Your task to perform on an android device: Search for panasonic triple a on walmart.com, select the first entry, and add it to the cart. Image 0: 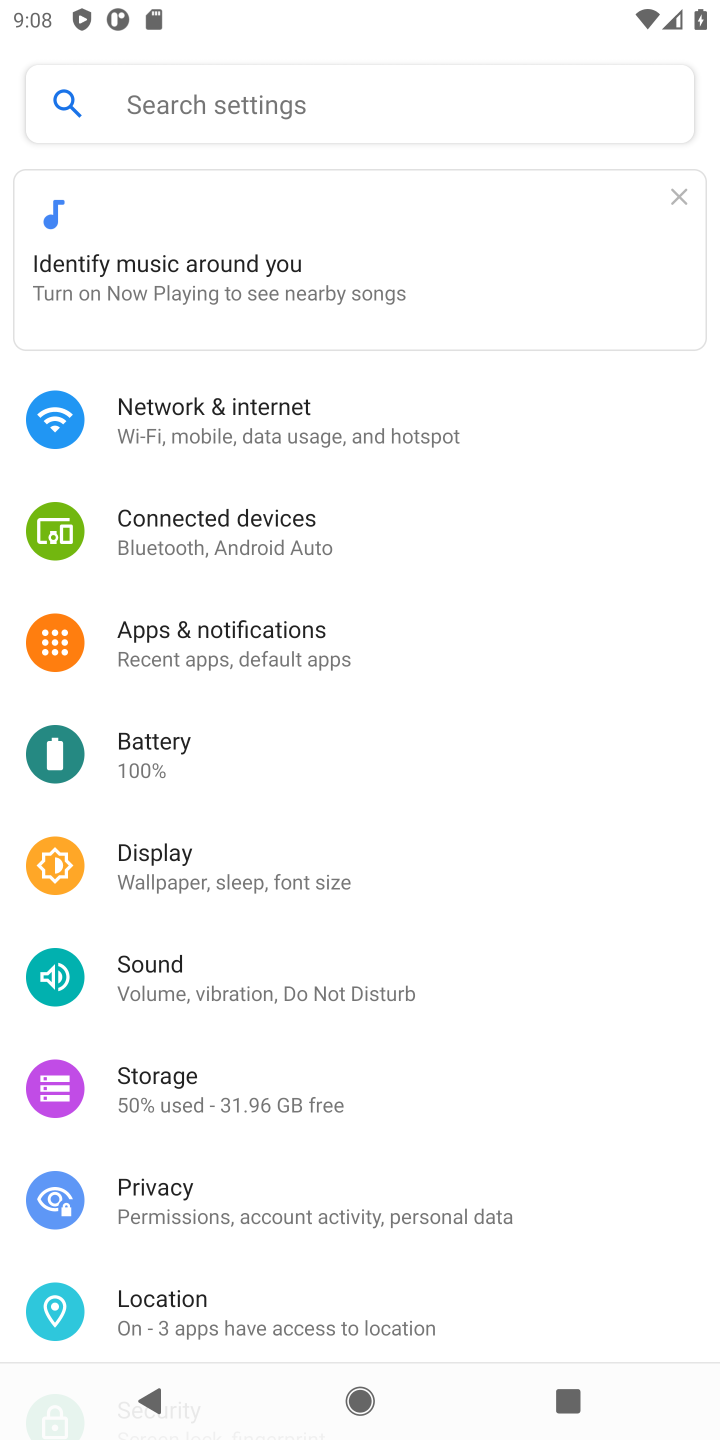
Step 0: press home button
Your task to perform on an android device: Search for panasonic triple a on walmart.com, select the first entry, and add it to the cart. Image 1: 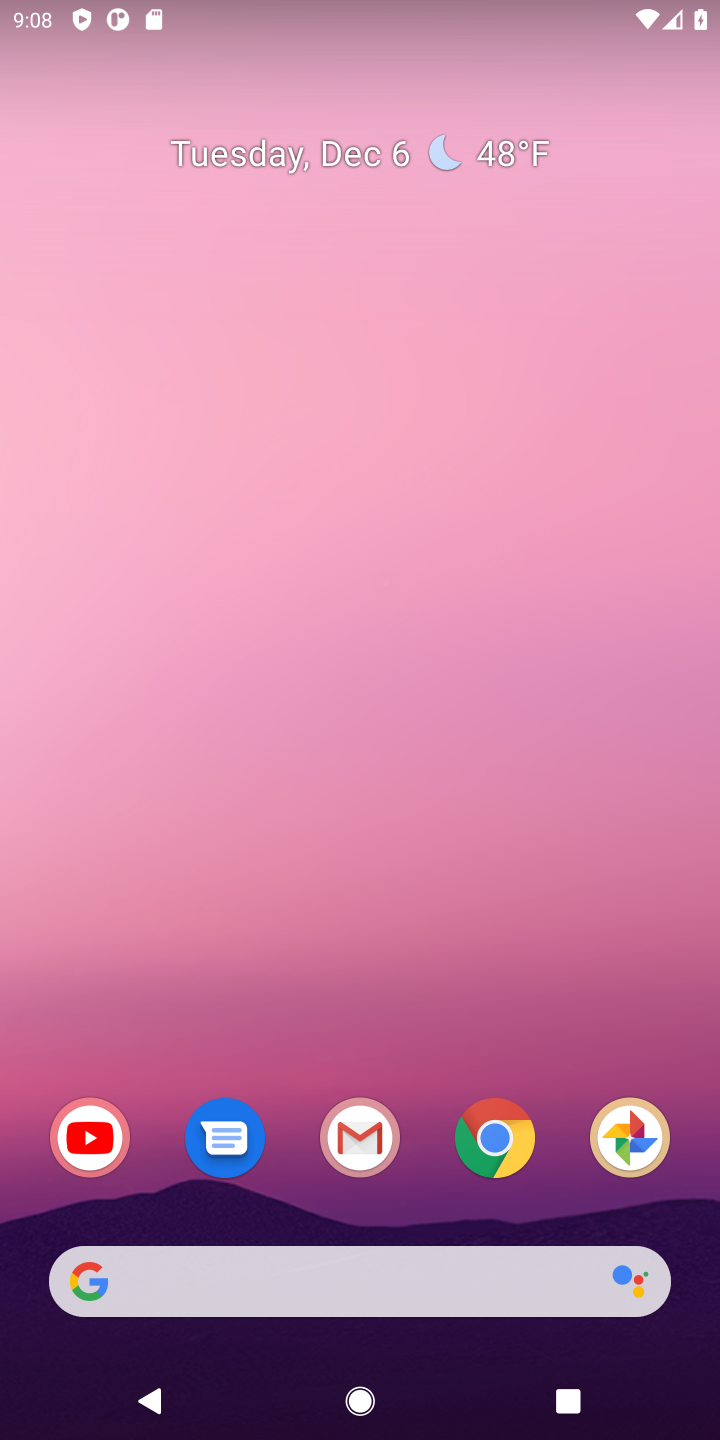
Step 1: click (498, 1147)
Your task to perform on an android device: Search for panasonic triple a on walmart.com, select the first entry, and add it to the cart. Image 2: 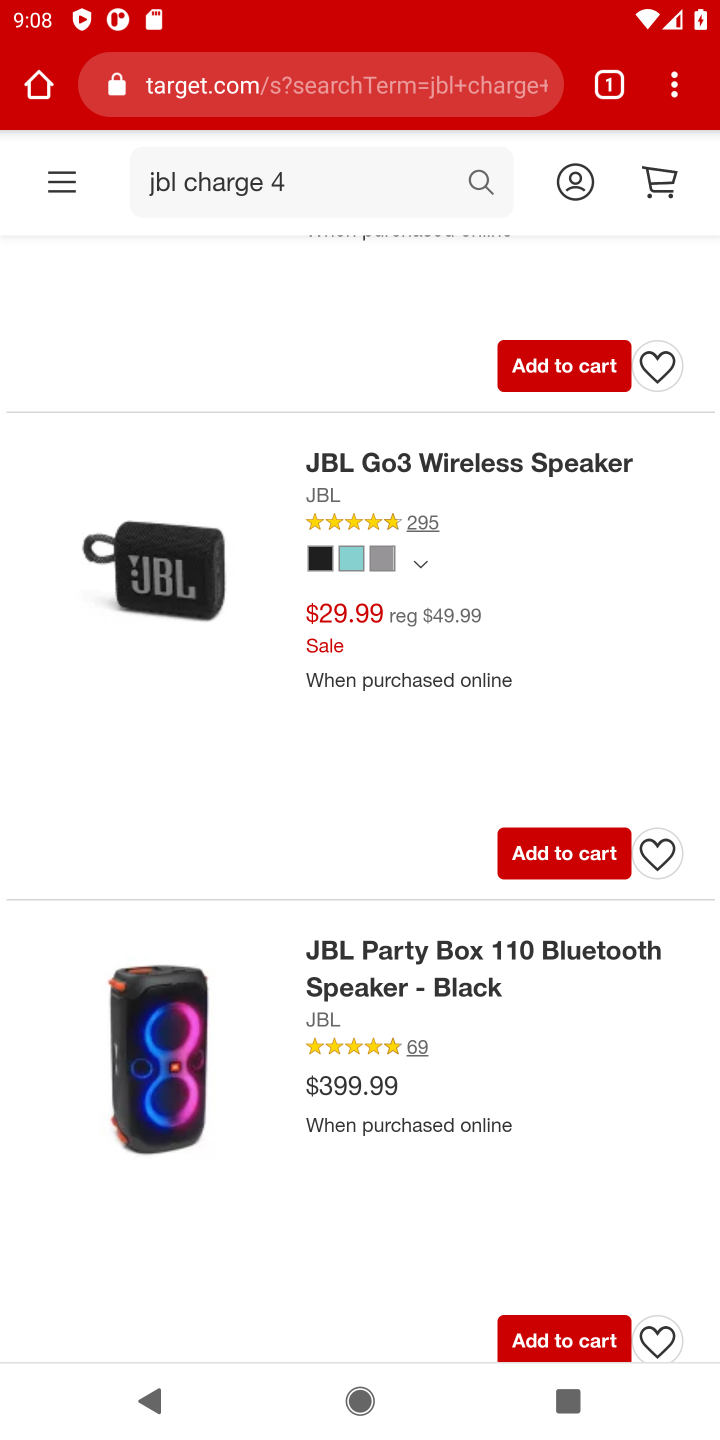
Step 2: click (258, 98)
Your task to perform on an android device: Search for panasonic triple a on walmart.com, select the first entry, and add it to the cart. Image 3: 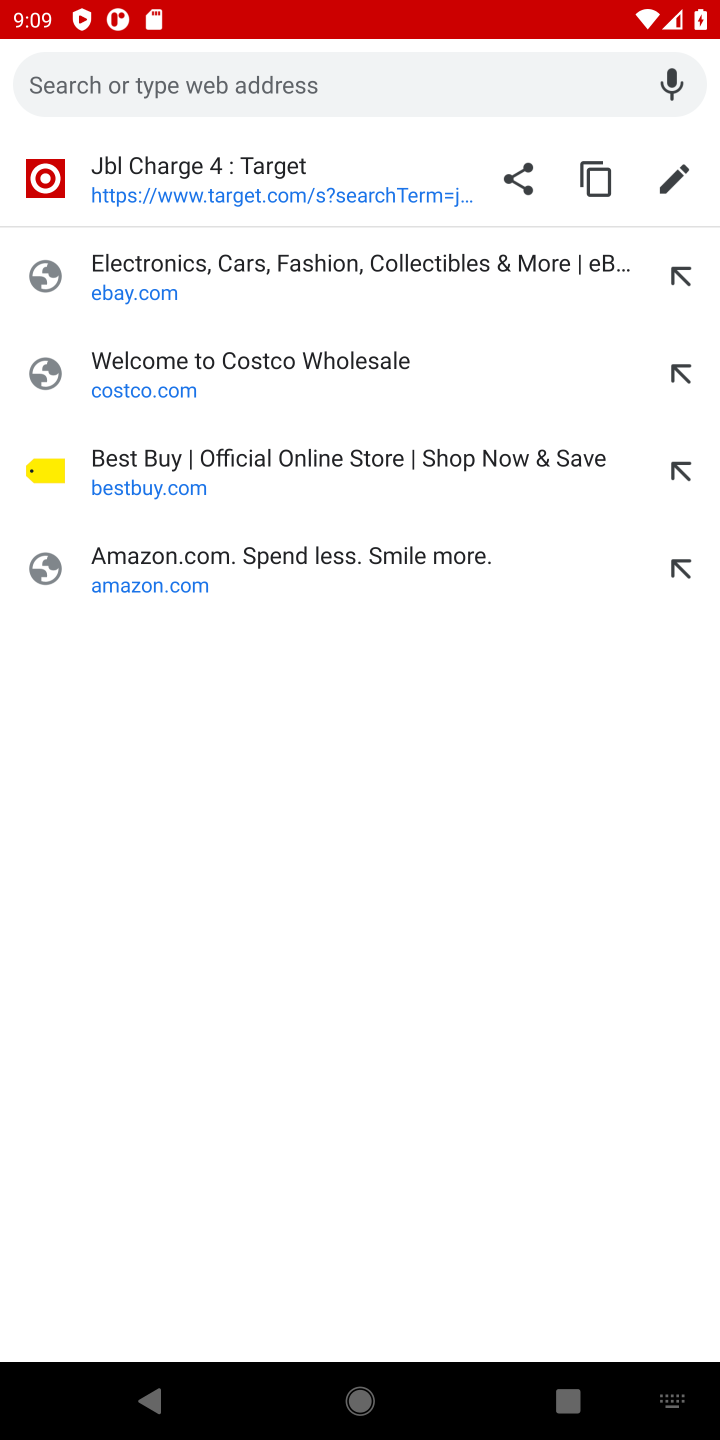
Step 3: type "walmart.com"
Your task to perform on an android device: Search for panasonic triple a on walmart.com, select the first entry, and add it to the cart. Image 4: 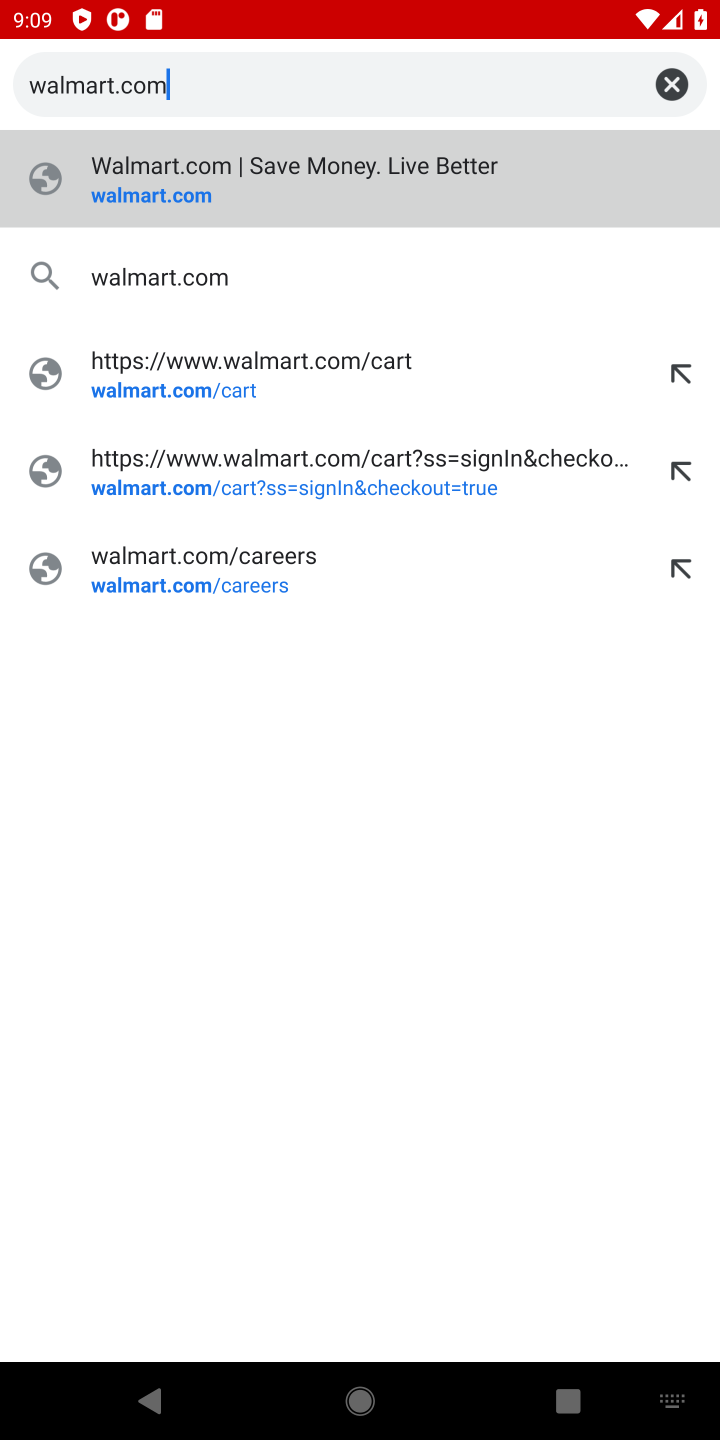
Step 4: click (179, 195)
Your task to perform on an android device: Search for panasonic triple a on walmart.com, select the first entry, and add it to the cart. Image 5: 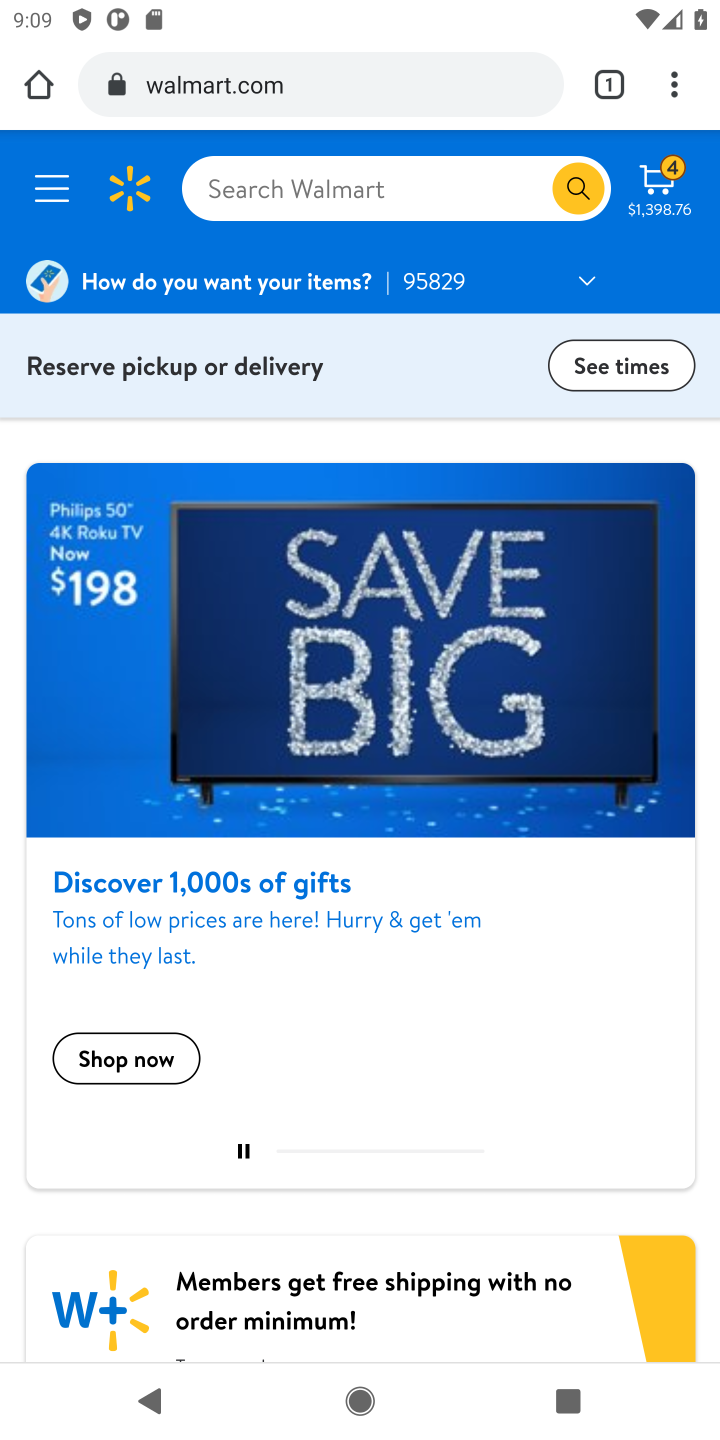
Step 5: click (271, 203)
Your task to perform on an android device: Search for panasonic triple a on walmart.com, select the first entry, and add it to the cart. Image 6: 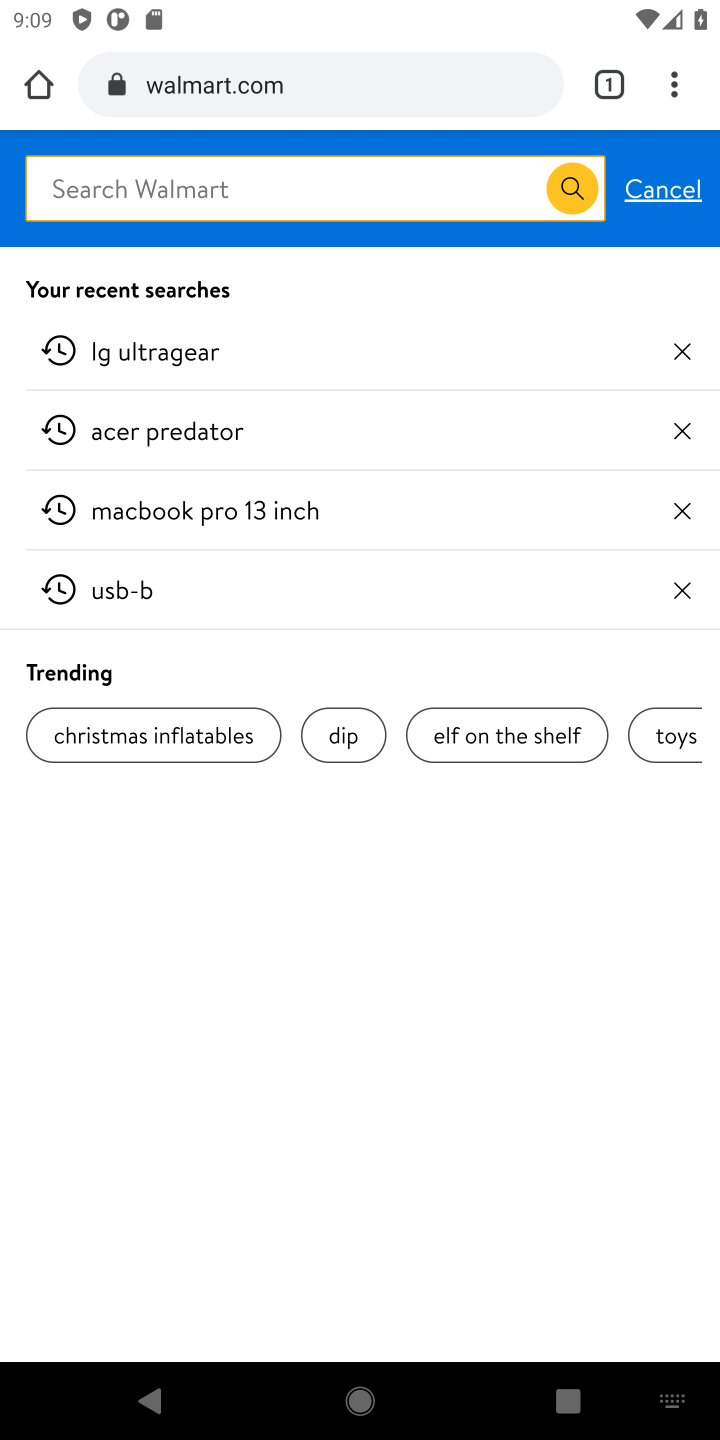
Step 6: type "panasonic triple a"
Your task to perform on an android device: Search for panasonic triple a on walmart.com, select the first entry, and add it to the cart. Image 7: 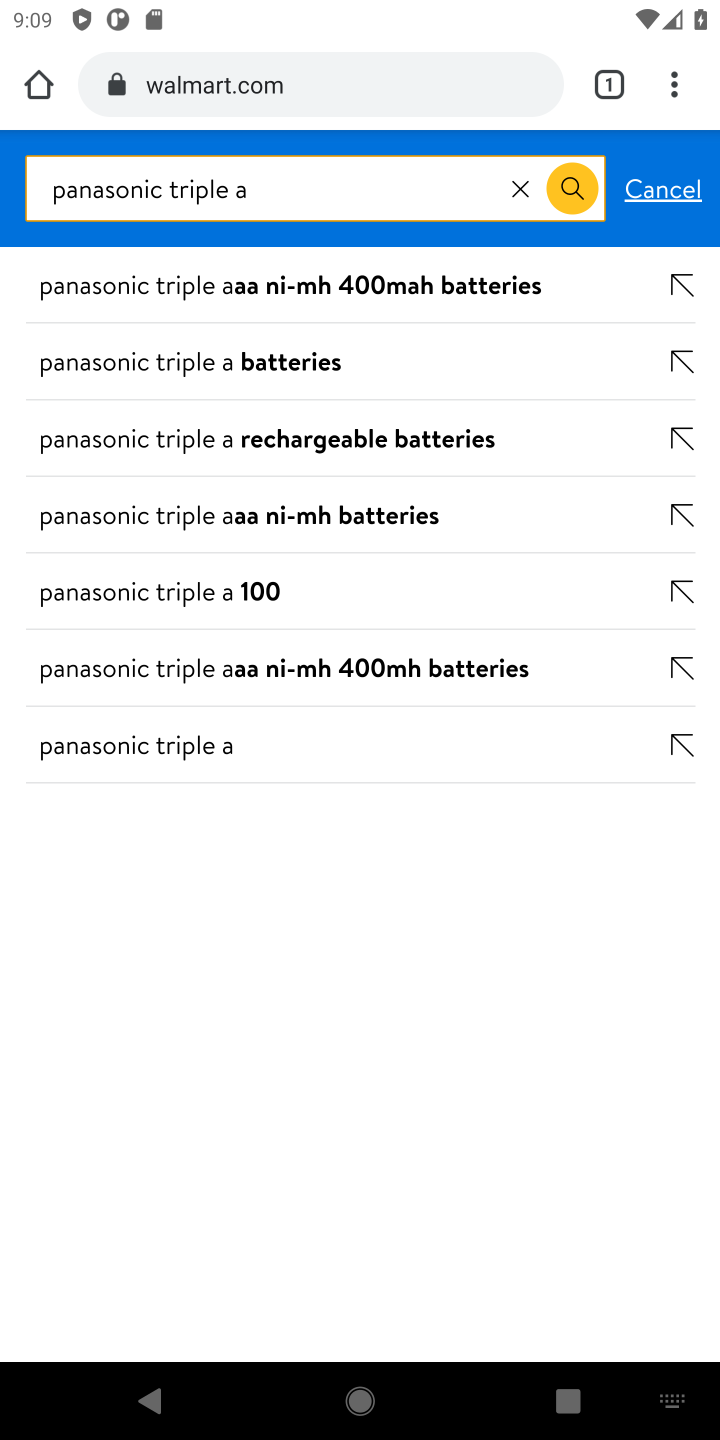
Step 7: click (288, 376)
Your task to perform on an android device: Search for panasonic triple a on walmart.com, select the first entry, and add it to the cart. Image 8: 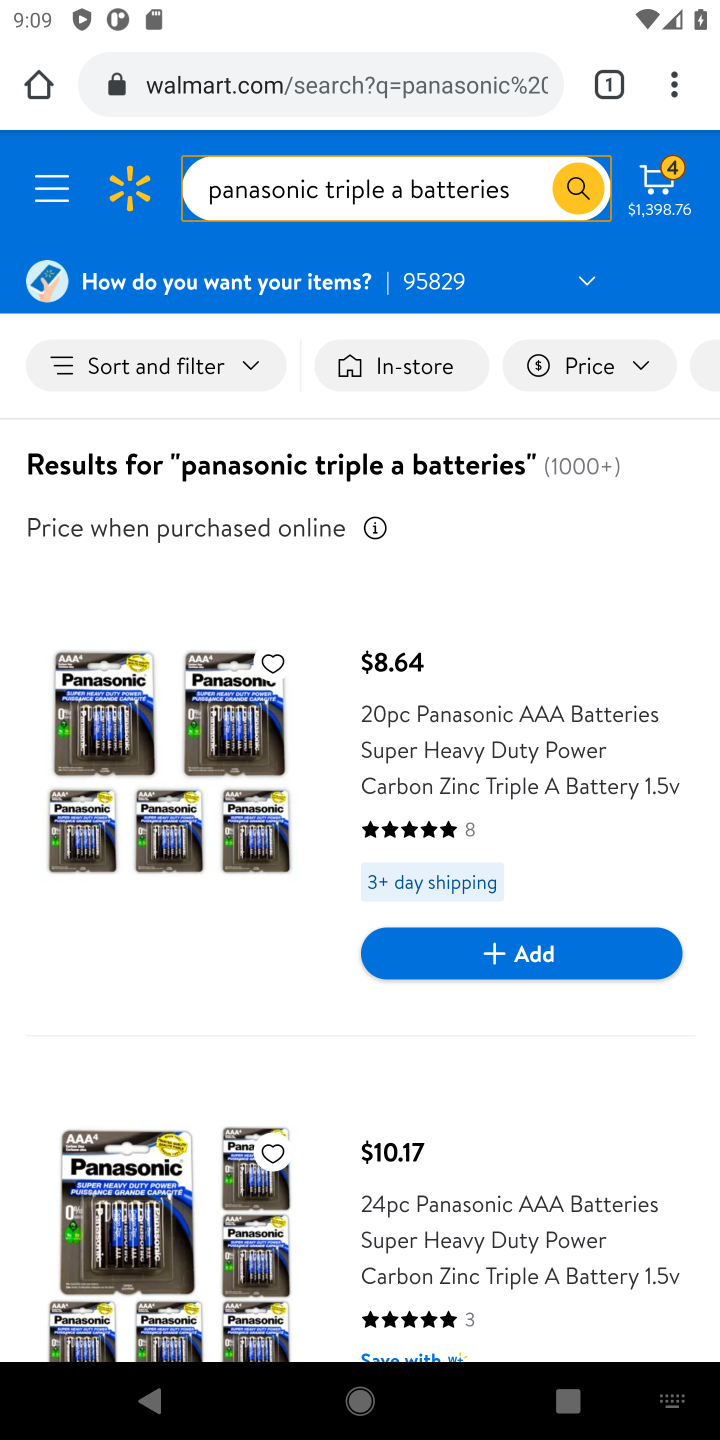
Step 8: click (474, 948)
Your task to perform on an android device: Search for panasonic triple a on walmart.com, select the first entry, and add it to the cart. Image 9: 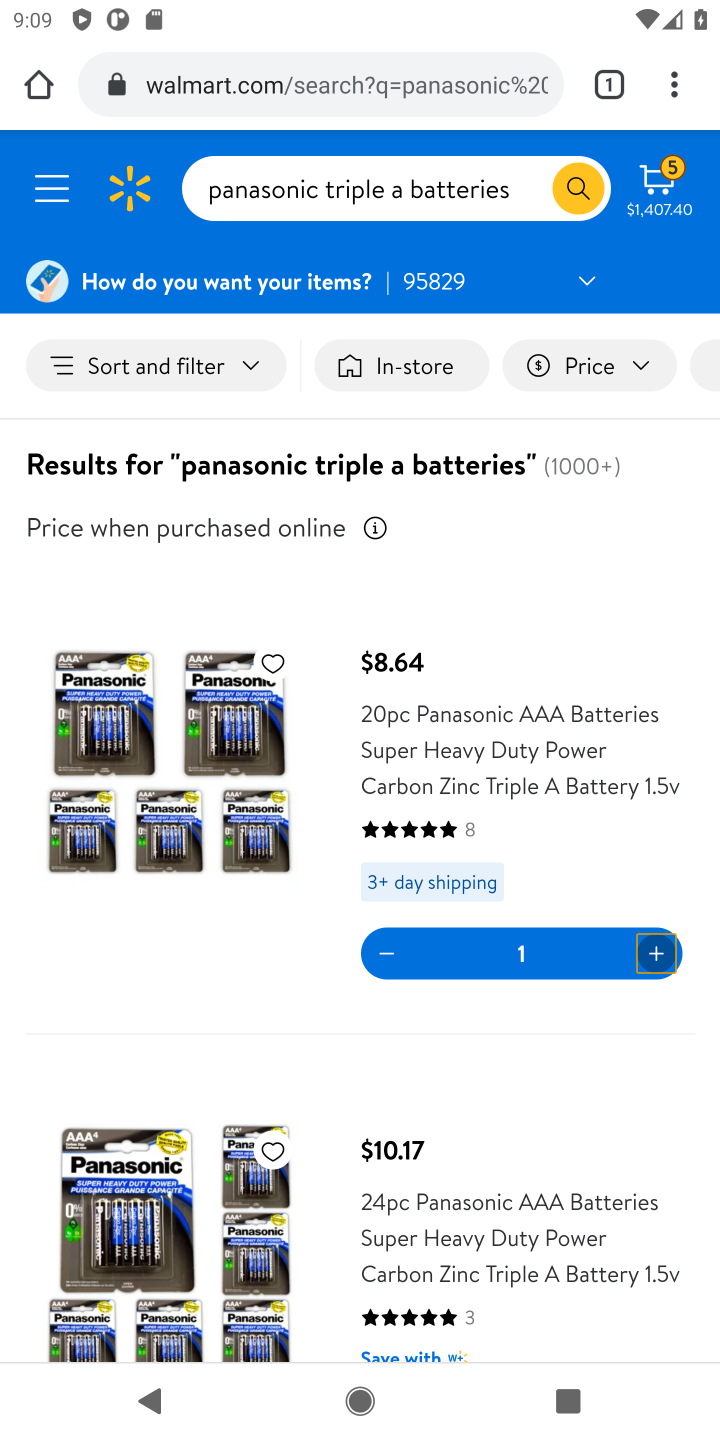
Step 9: task complete